Your task to perform on an android device: Open Chrome and go to settings Image 0: 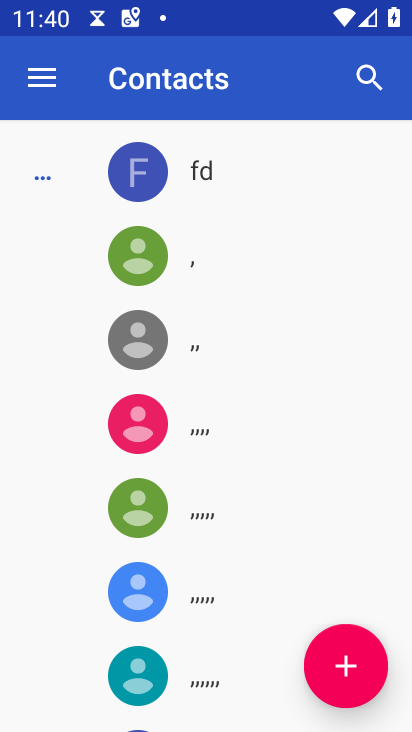
Step 0: press home button
Your task to perform on an android device: Open Chrome and go to settings Image 1: 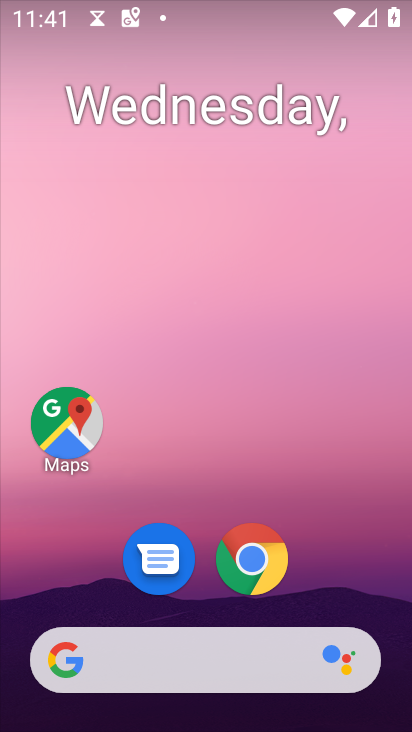
Step 1: click (282, 569)
Your task to perform on an android device: Open Chrome and go to settings Image 2: 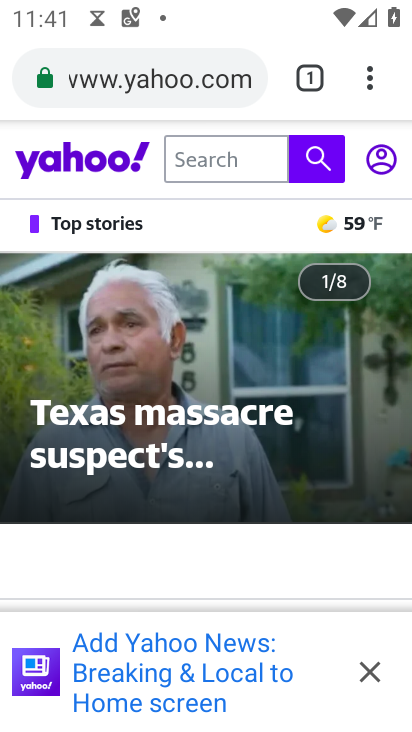
Step 2: click (378, 94)
Your task to perform on an android device: Open Chrome and go to settings Image 3: 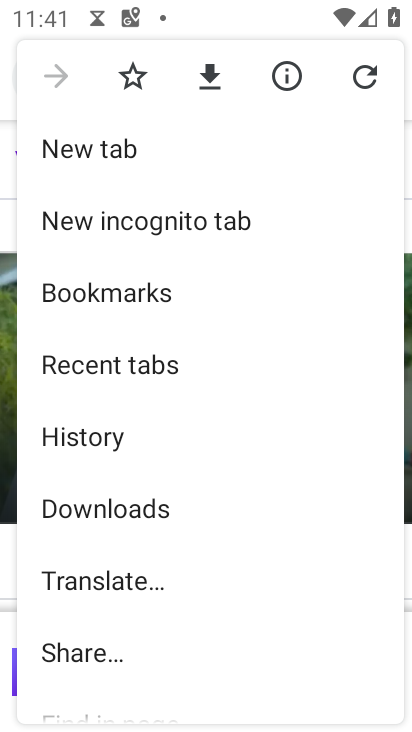
Step 3: drag from (218, 662) to (206, 209)
Your task to perform on an android device: Open Chrome and go to settings Image 4: 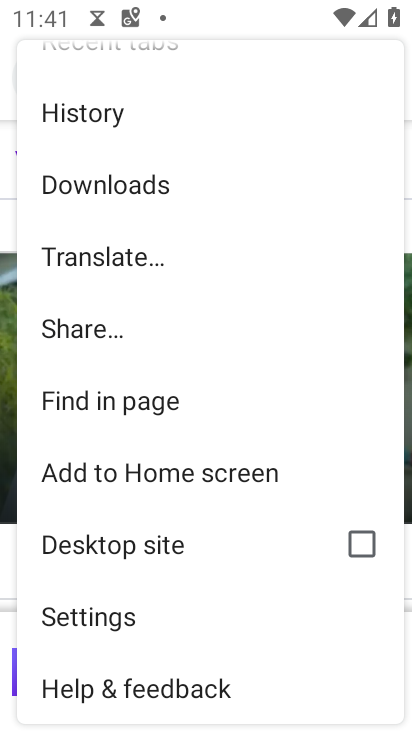
Step 4: click (185, 606)
Your task to perform on an android device: Open Chrome and go to settings Image 5: 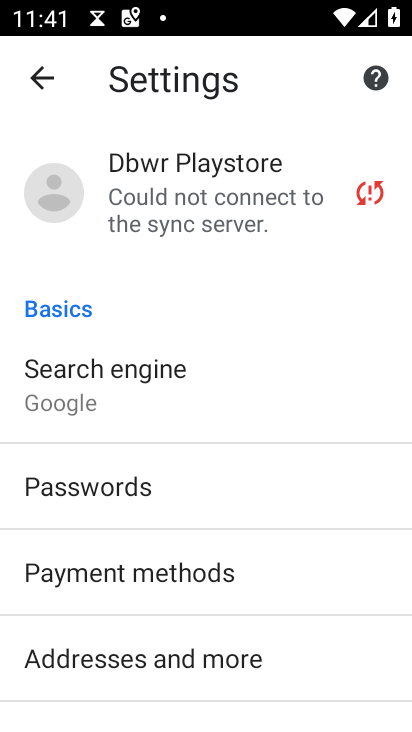
Step 5: task complete